Your task to perform on an android device: change timer sound Image 0: 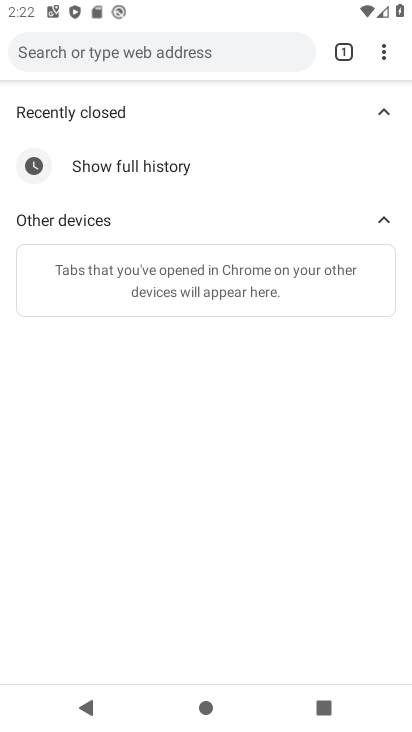
Step 0: press home button
Your task to perform on an android device: change timer sound Image 1: 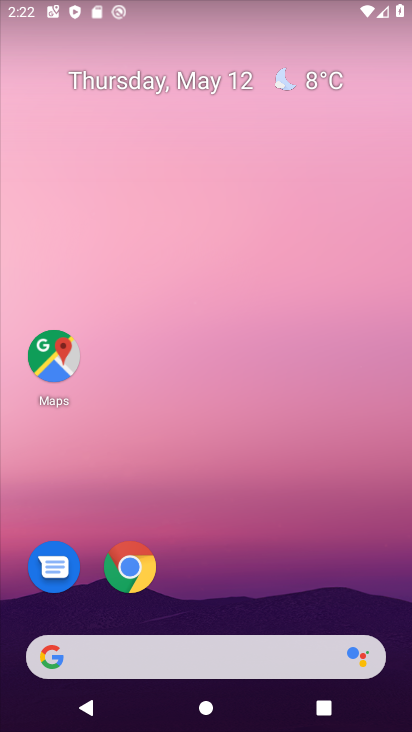
Step 1: drag from (234, 580) to (277, 46)
Your task to perform on an android device: change timer sound Image 2: 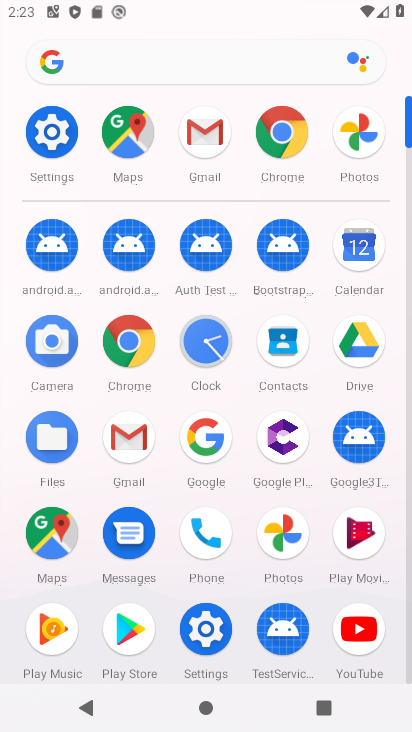
Step 2: click (203, 332)
Your task to perform on an android device: change timer sound Image 3: 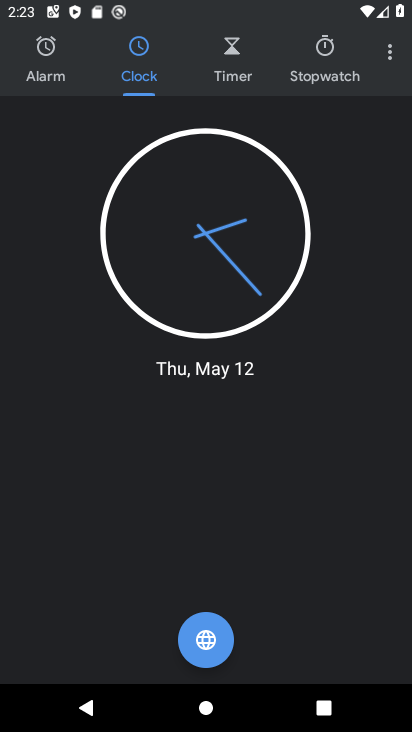
Step 3: click (384, 51)
Your task to perform on an android device: change timer sound Image 4: 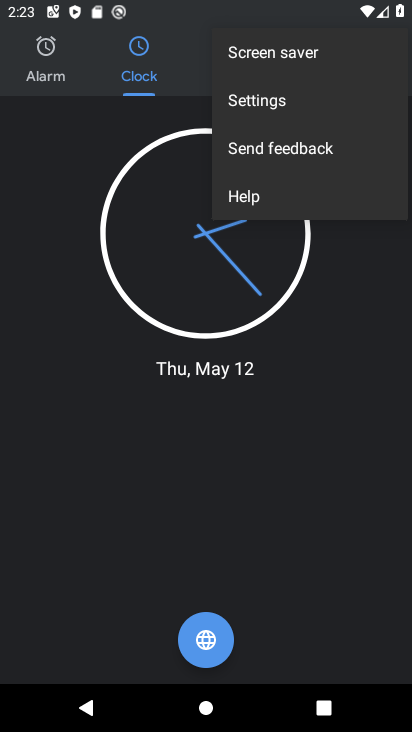
Step 4: click (283, 100)
Your task to perform on an android device: change timer sound Image 5: 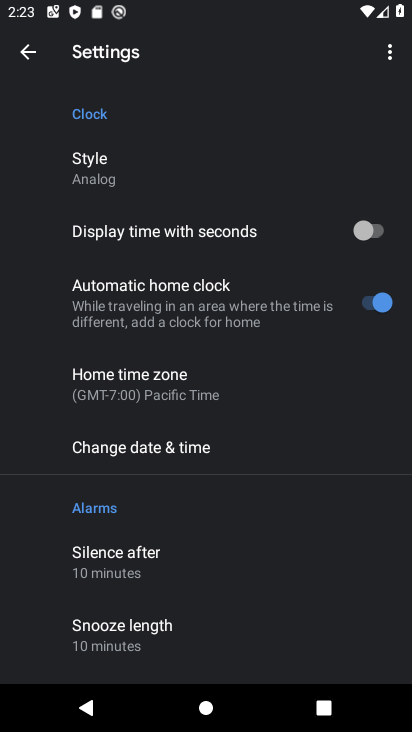
Step 5: drag from (194, 542) to (232, 157)
Your task to perform on an android device: change timer sound Image 6: 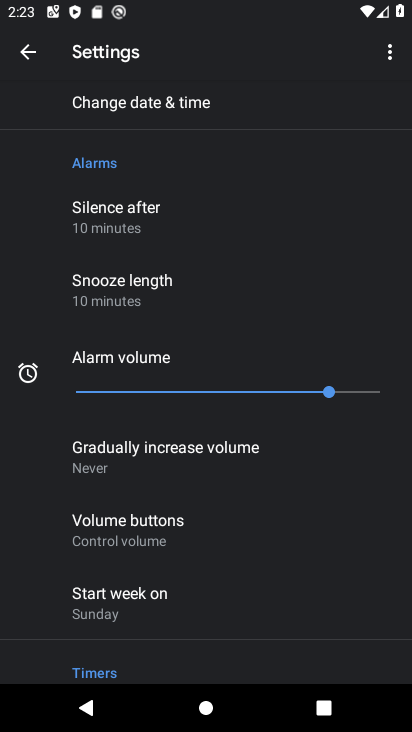
Step 6: drag from (195, 554) to (274, 147)
Your task to perform on an android device: change timer sound Image 7: 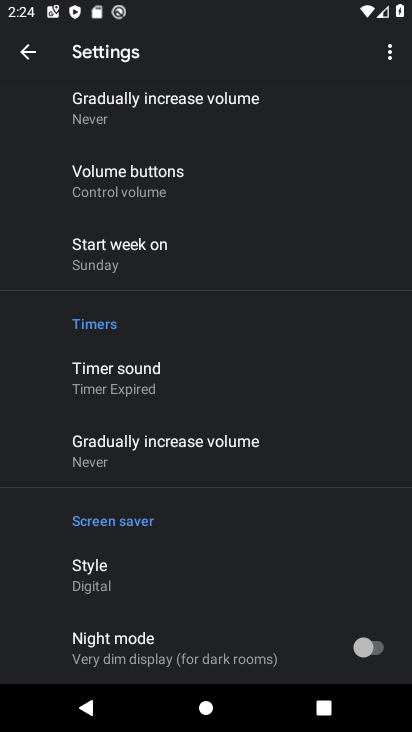
Step 7: click (174, 377)
Your task to perform on an android device: change timer sound Image 8: 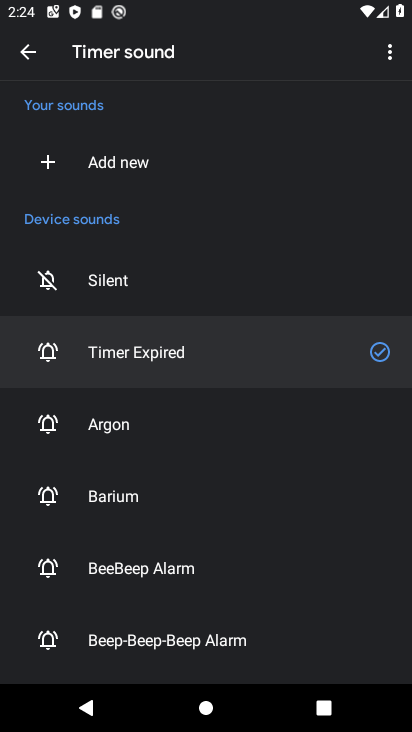
Step 8: click (190, 554)
Your task to perform on an android device: change timer sound Image 9: 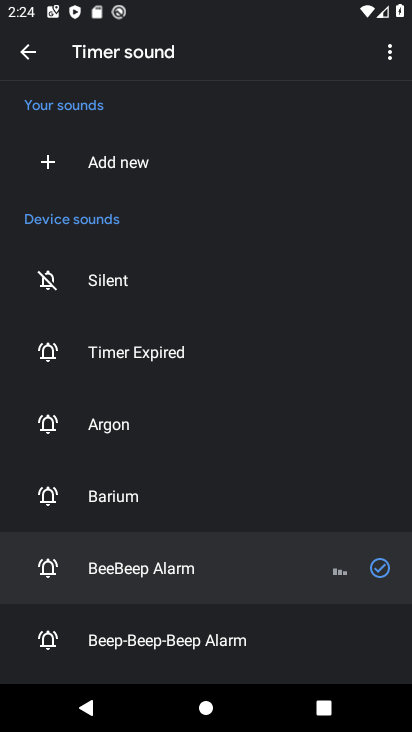
Step 9: task complete